Your task to perform on an android device: Open the calendar and show me this week's events? Image 0: 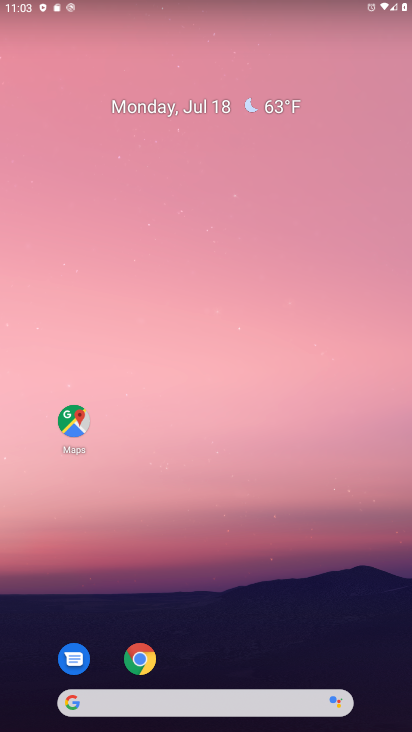
Step 0: drag from (187, 672) to (241, 162)
Your task to perform on an android device: Open the calendar and show me this week's events? Image 1: 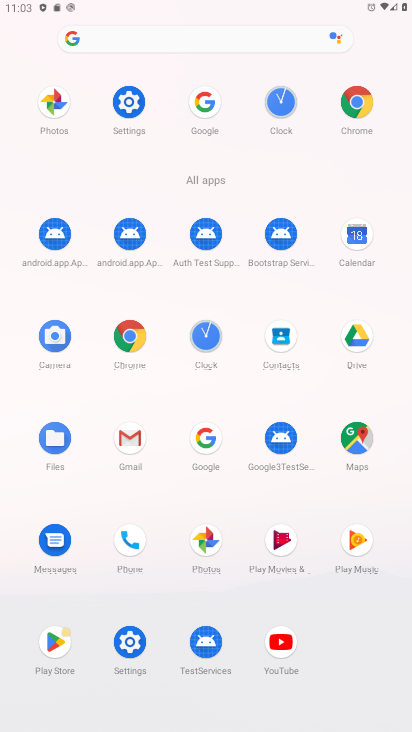
Step 1: click (353, 243)
Your task to perform on an android device: Open the calendar and show me this week's events? Image 2: 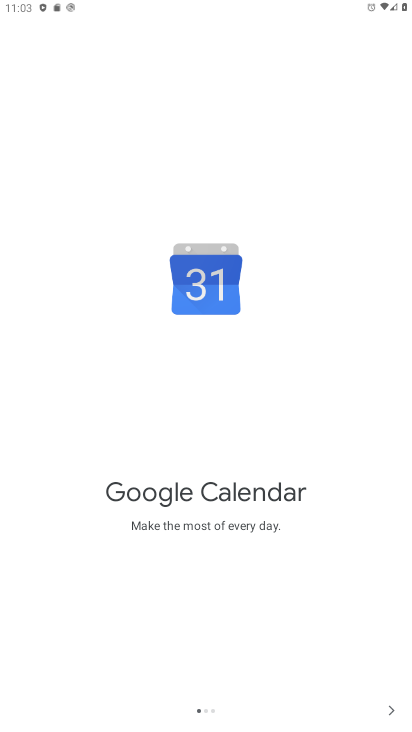
Step 2: click (393, 706)
Your task to perform on an android device: Open the calendar and show me this week's events? Image 3: 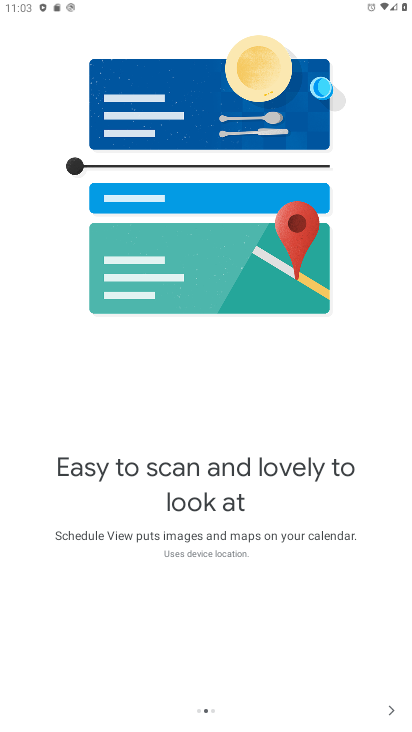
Step 3: click (393, 706)
Your task to perform on an android device: Open the calendar and show me this week's events? Image 4: 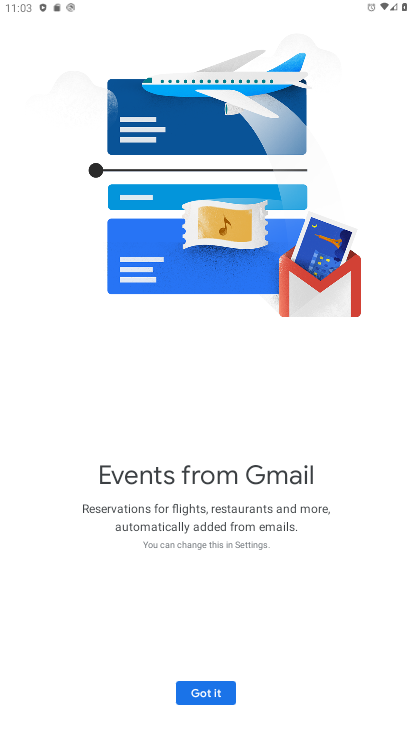
Step 4: click (220, 696)
Your task to perform on an android device: Open the calendar and show me this week's events? Image 5: 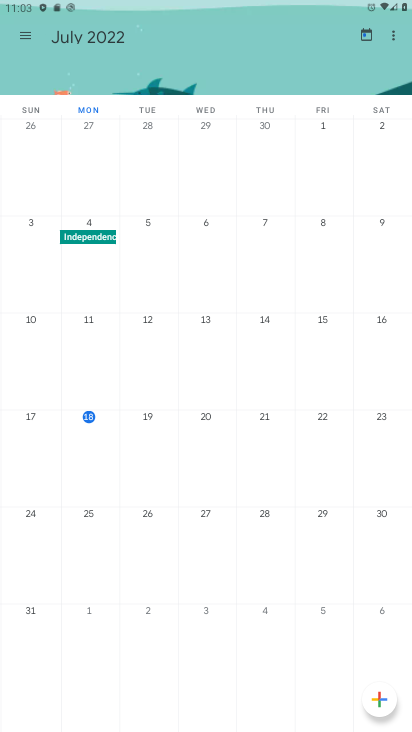
Step 5: click (208, 423)
Your task to perform on an android device: Open the calendar and show me this week's events? Image 6: 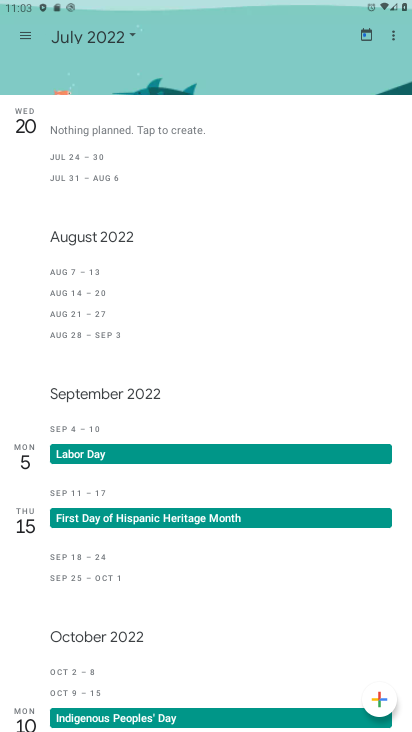
Step 6: task complete